Your task to perform on an android device: add a contact in the contacts app Image 0: 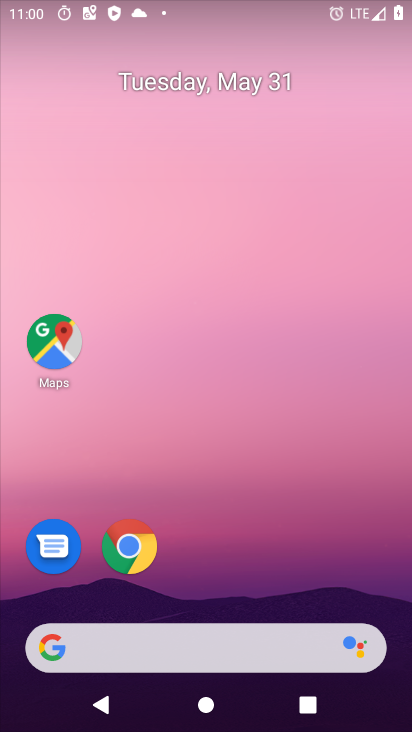
Step 0: drag from (299, 559) to (288, 239)
Your task to perform on an android device: add a contact in the contacts app Image 1: 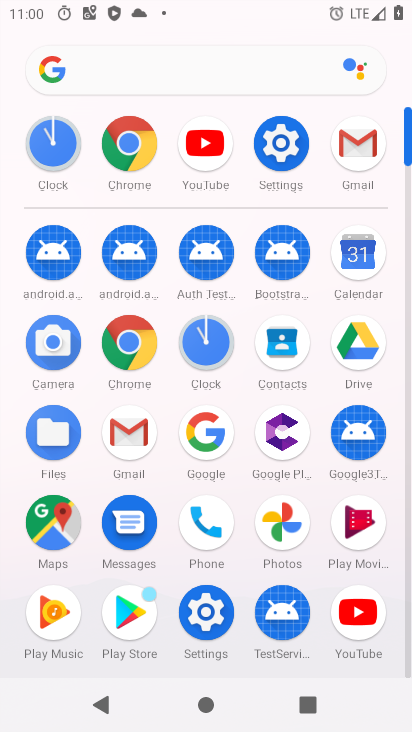
Step 1: click (287, 346)
Your task to perform on an android device: add a contact in the contacts app Image 2: 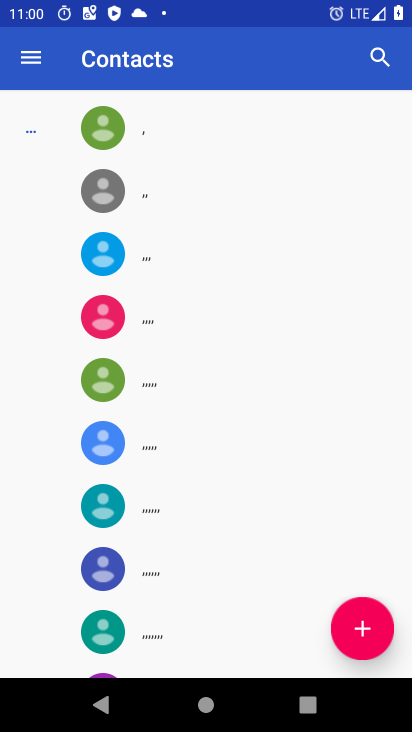
Step 2: click (369, 613)
Your task to perform on an android device: add a contact in the contacts app Image 3: 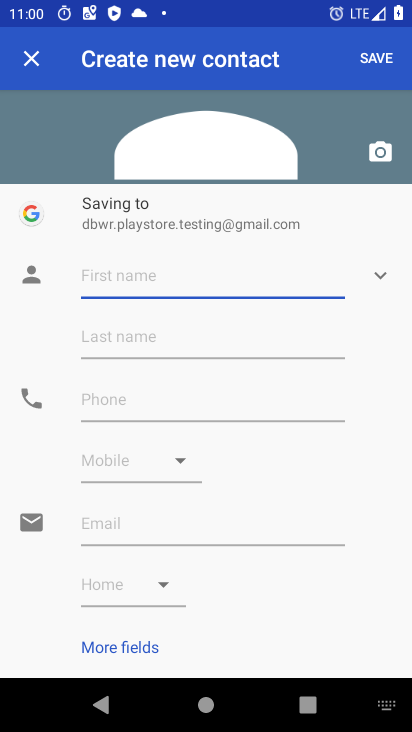
Step 3: type "wrws"
Your task to perform on an android device: add a contact in the contacts app Image 4: 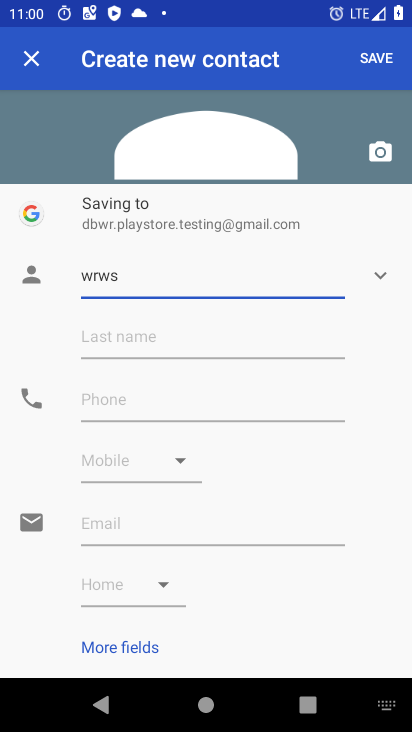
Step 4: click (151, 387)
Your task to perform on an android device: add a contact in the contacts app Image 5: 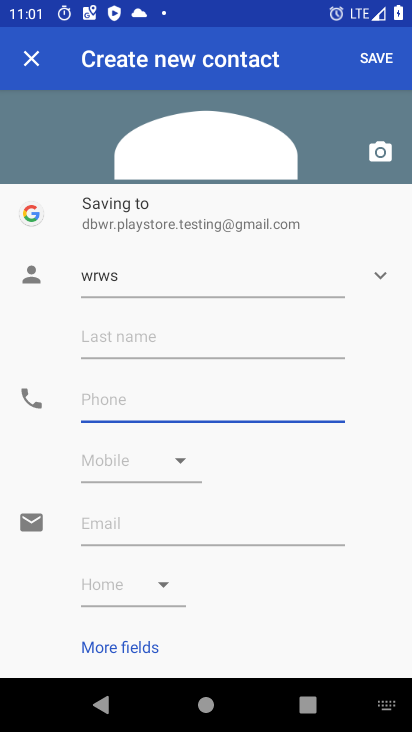
Step 5: type "786576001334"
Your task to perform on an android device: add a contact in the contacts app Image 6: 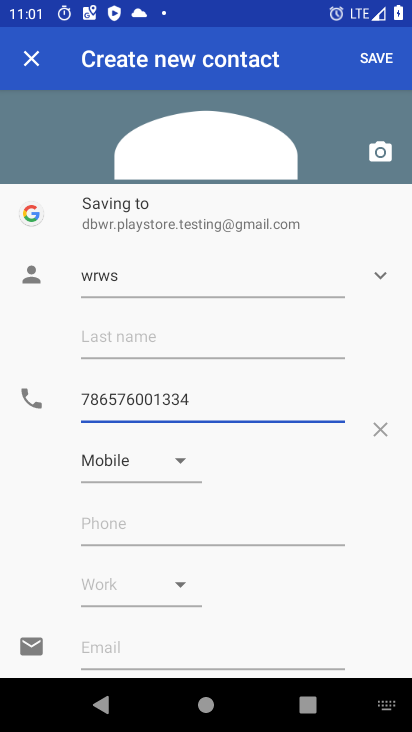
Step 6: click (369, 62)
Your task to perform on an android device: add a contact in the contacts app Image 7: 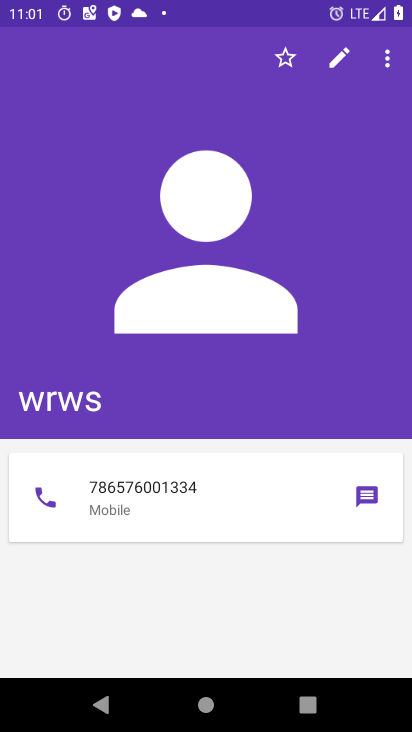
Step 7: task complete